Your task to perform on an android device: Open Reddit.com Image 0: 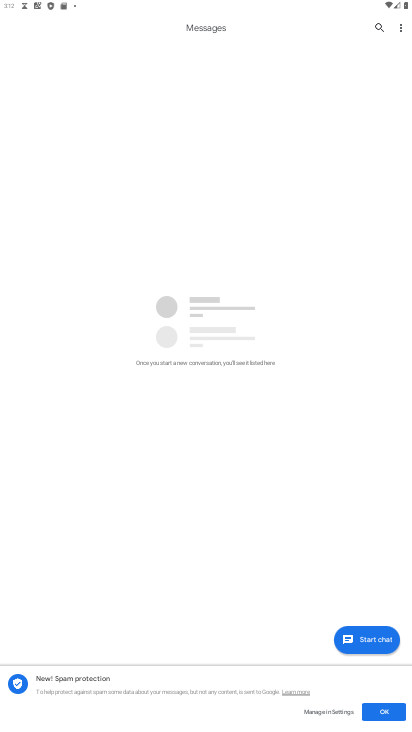
Step 0: press home button
Your task to perform on an android device: Open Reddit.com Image 1: 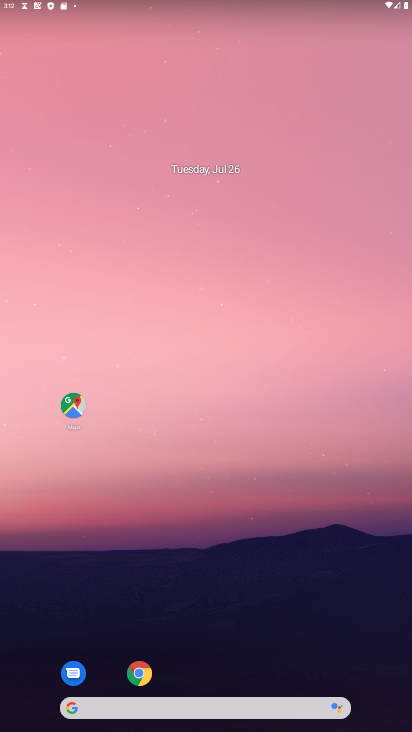
Step 1: click (138, 672)
Your task to perform on an android device: Open Reddit.com Image 2: 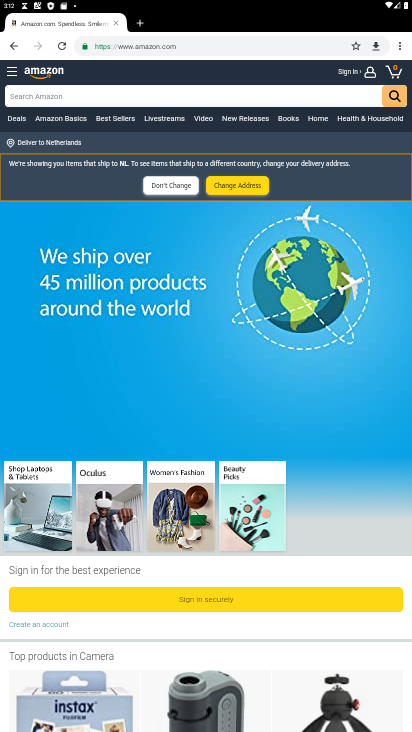
Step 2: click (277, 44)
Your task to perform on an android device: Open Reddit.com Image 3: 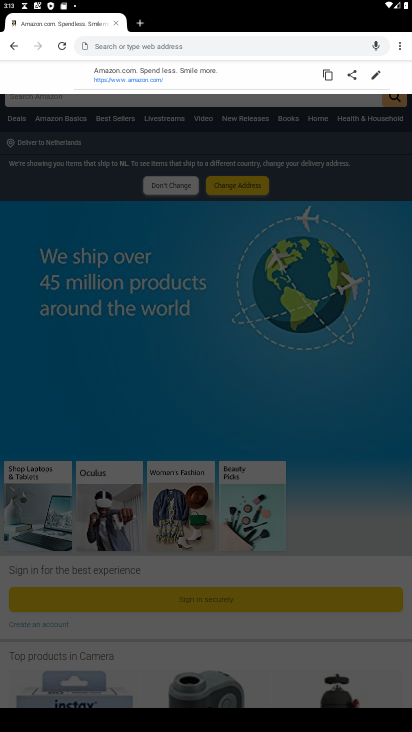
Step 3: type "Reddit.com"
Your task to perform on an android device: Open Reddit.com Image 4: 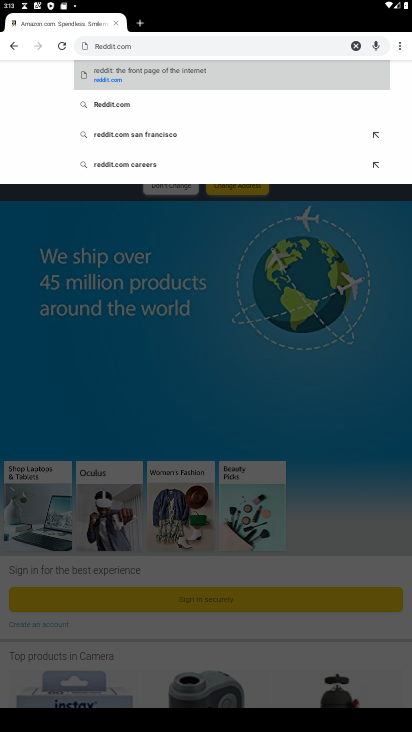
Step 4: click (98, 110)
Your task to perform on an android device: Open Reddit.com Image 5: 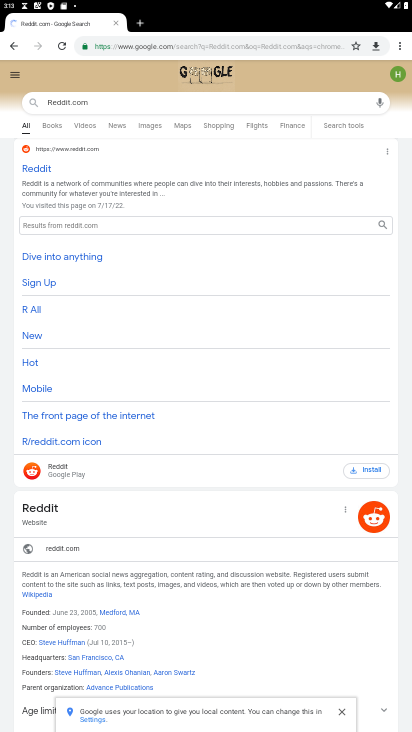
Step 5: click (41, 163)
Your task to perform on an android device: Open Reddit.com Image 6: 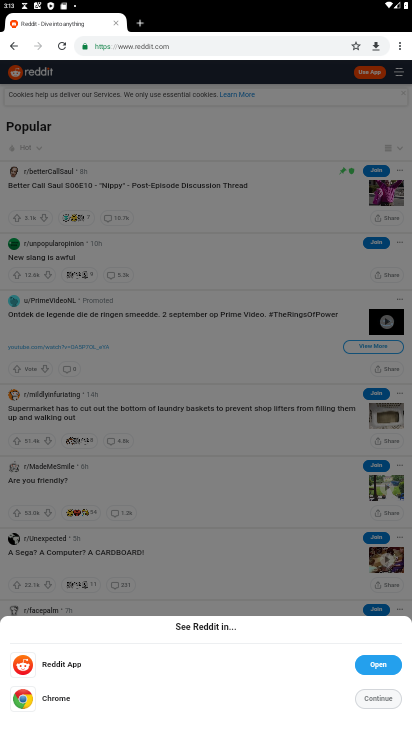
Step 6: click (371, 697)
Your task to perform on an android device: Open Reddit.com Image 7: 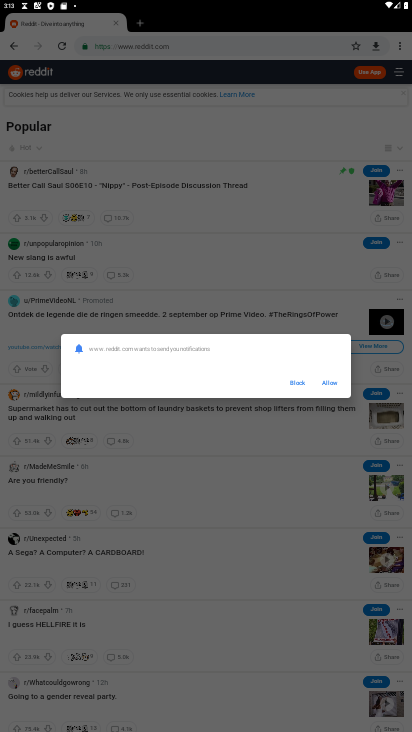
Step 7: click (331, 381)
Your task to perform on an android device: Open Reddit.com Image 8: 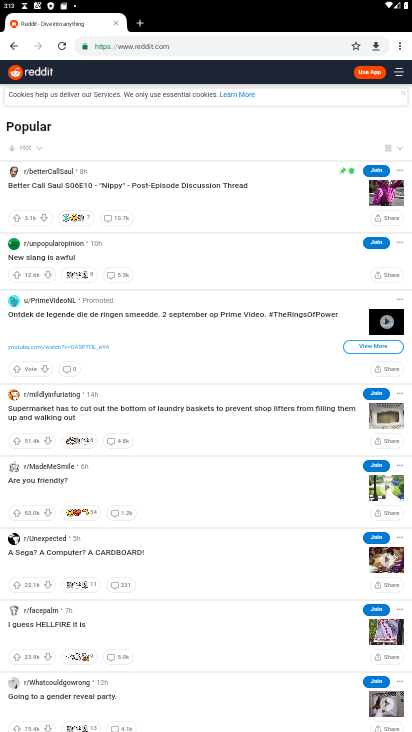
Step 8: task complete